Your task to perform on an android device: open app "Facebook Messenger" (install if not already installed) Image 0: 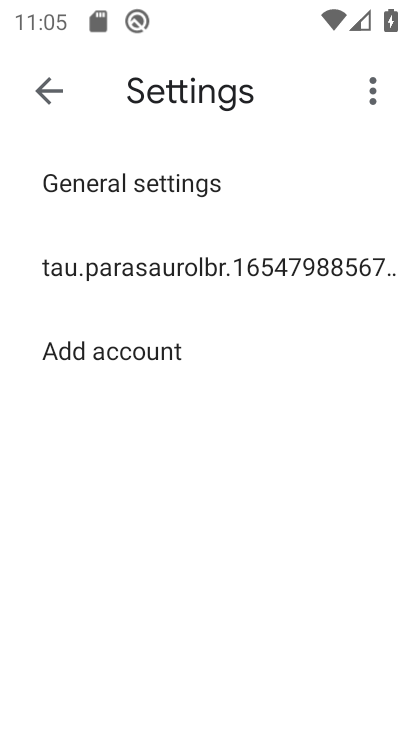
Step 0: press home button
Your task to perform on an android device: open app "Facebook Messenger" (install if not already installed) Image 1: 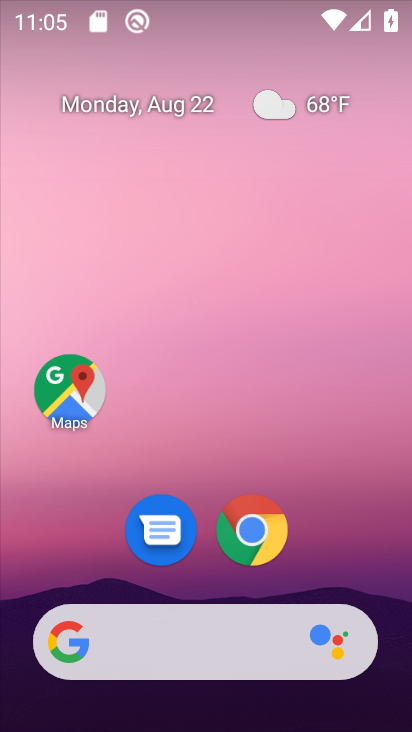
Step 1: drag from (175, 622) to (191, 10)
Your task to perform on an android device: open app "Facebook Messenger" (install if not already installed) Image 2: 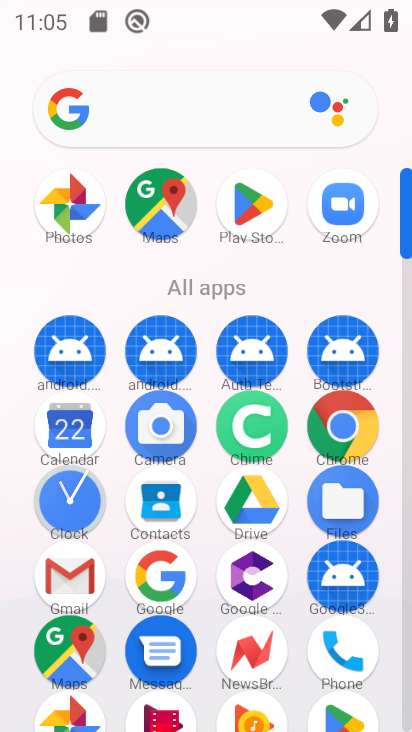
Step 2: click (257, 208)
Your task to perform on an android device: open app "Facebook Messenger" (install if not already installed) Image 3: 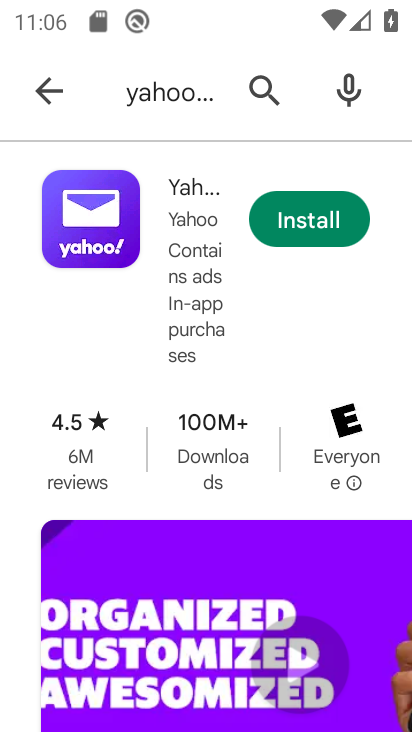
Step 3: press back button
Your task to perform on an android device: open app "Facebook Messenger" (install if not already installed) Image 4: 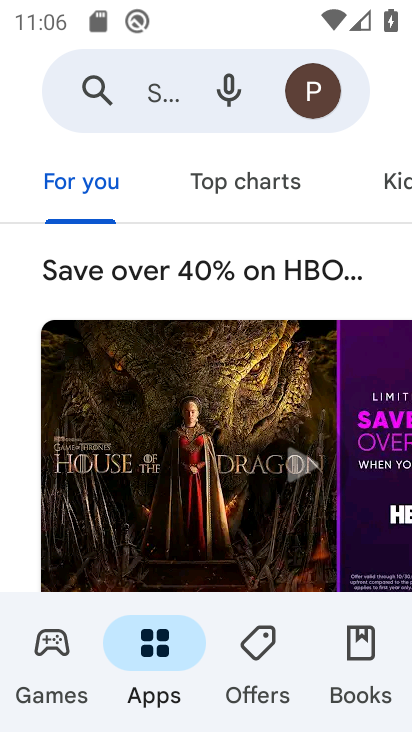
Step 4: click (164, 83)
Your task to perform on an android device: open app "Facebook Messenger" (install if not already installed) Image 5: 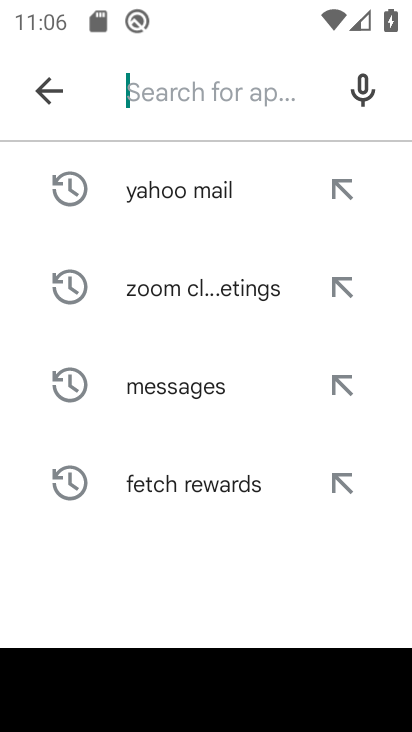
Step 5: type "Facebook Messenger"
Your task to perform on an android device: open app "Facebook Messenger" (install if not already installed) Image 6: 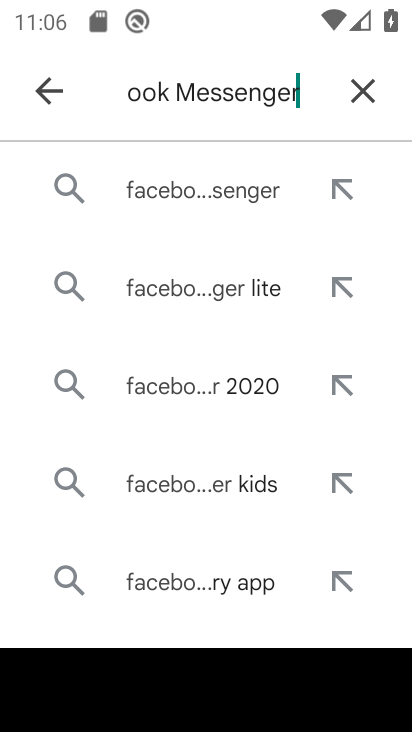
Step 6: click (220, 189)
Your task to perform on an android device: open app "Facebook Messenger" (install if not already installed) Image 7: 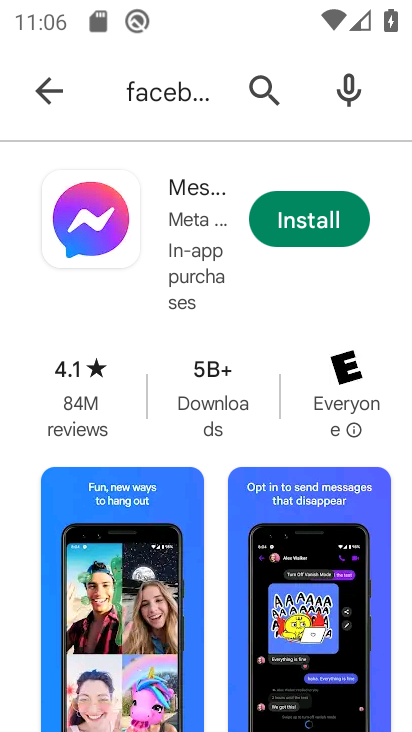
Step 7: click (302, 232)
Your task to perform on an android device: open app "Facebook Messenger" (install if not already installed) Image 8: 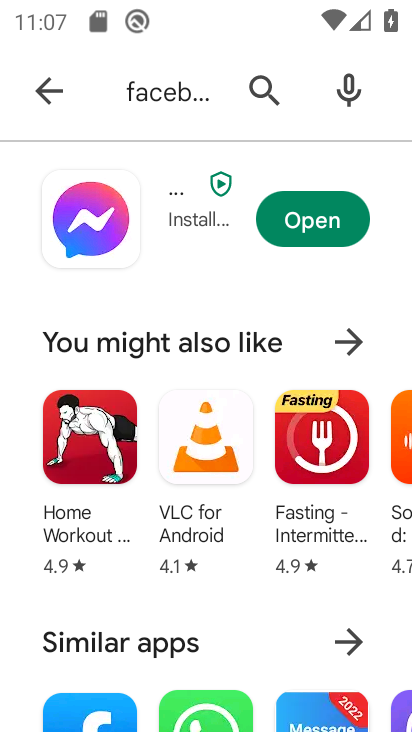
Step 8: click (322, 226)
Your task to perform on an android device: open app "Facebook Messenger" (install if not already installed) Image 9: 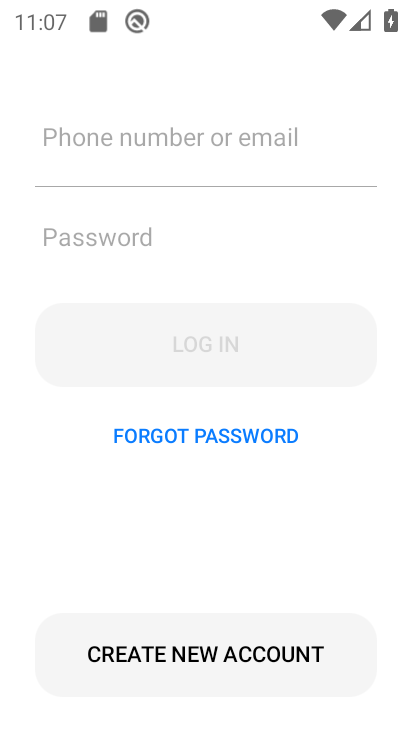
Step 9: task complete